Your task to perform on an android device: Go to Yahoo.com Image 0: 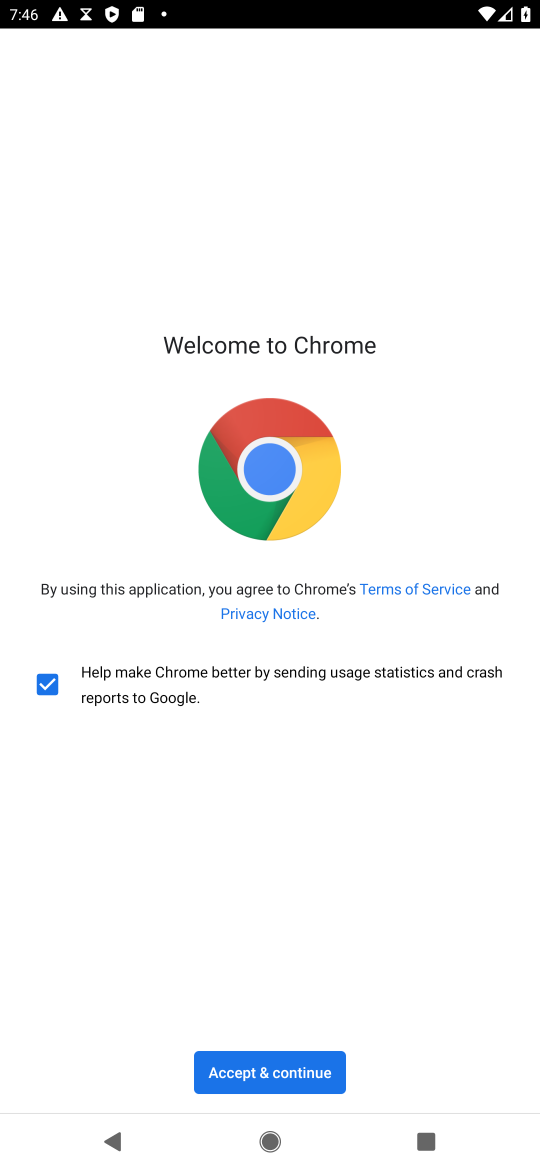
Step 0: click (309, 1076)
Your task to perform on an android device: Go to Yahoo.com Image 1: 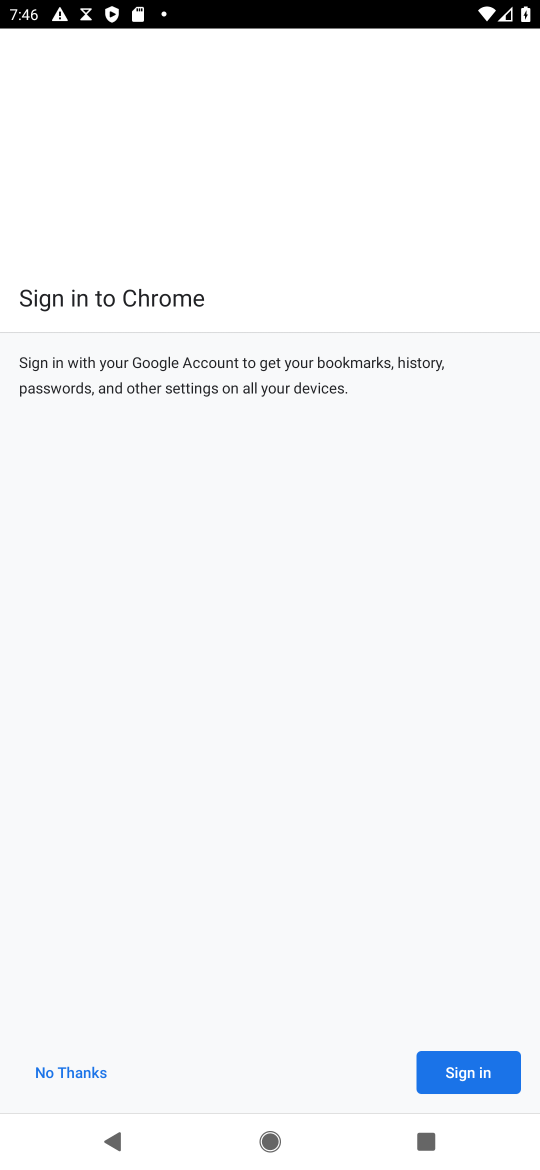
Step 1: click (500, 1071)
Your task to perform on an android device: Go to Yahoo.com Image 2: 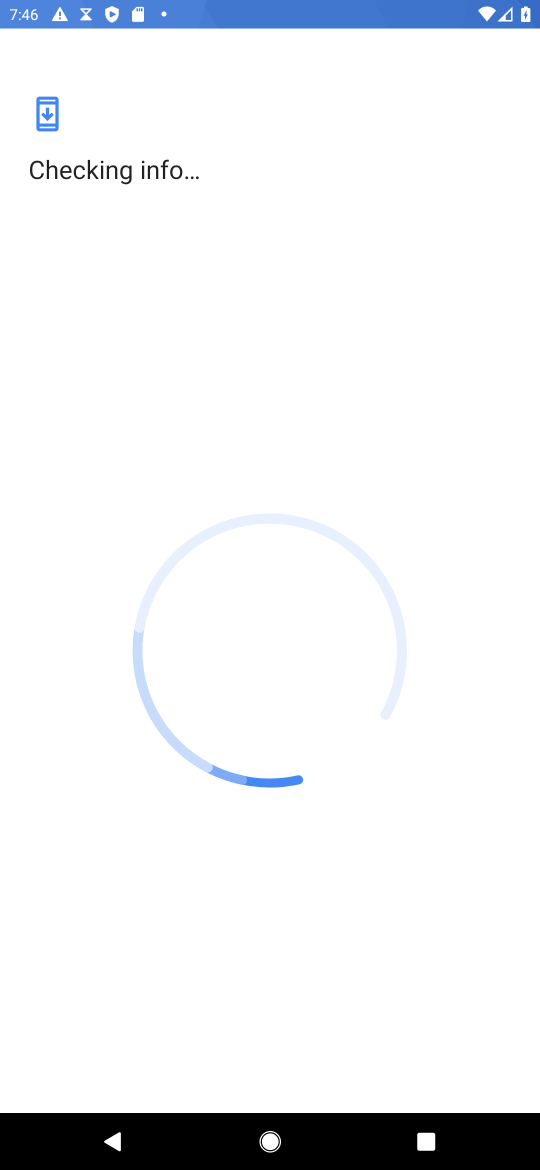
Step 2: click (475, 1063)
Your task to perform on an android device: Go to Yahoo.com Image 3: 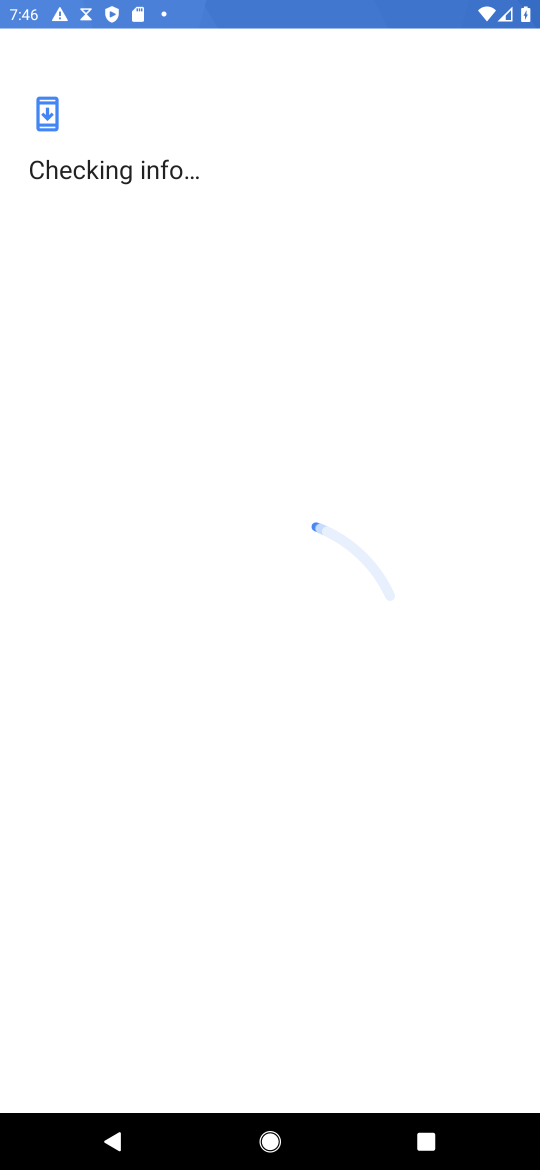
Step 3: press back button
Your task to perform on an android device: Go to Yahoo.com Image 4: 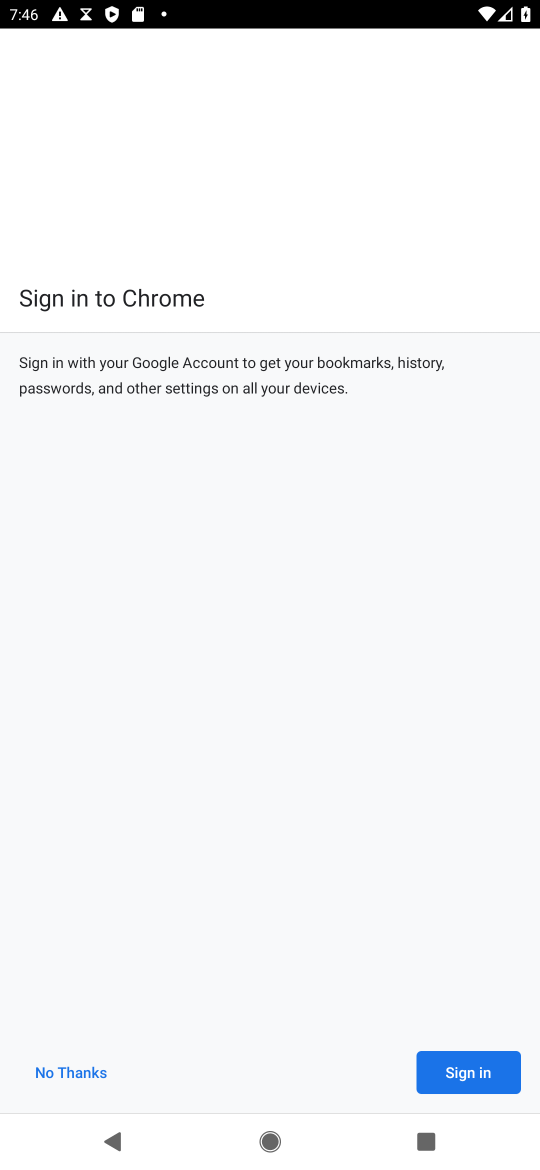
Step 4: click (78, 1068)
Your task to perform on an android device: Go to Yahoo.com Image 5: 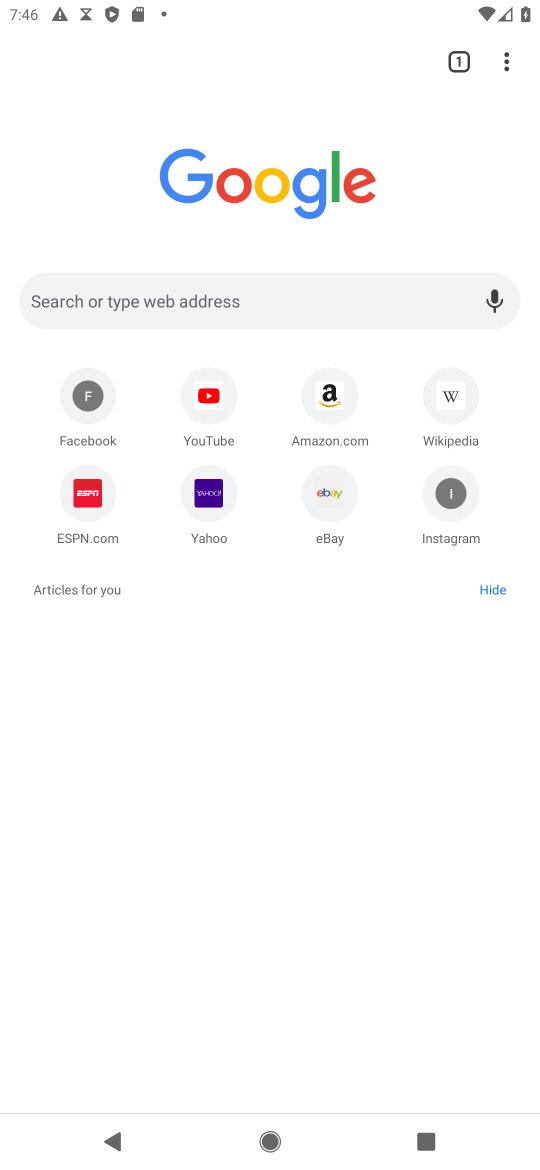
Step 5: click (194, 515)
Your task to perform on an android device: Go to Yahoo.com Image 6: 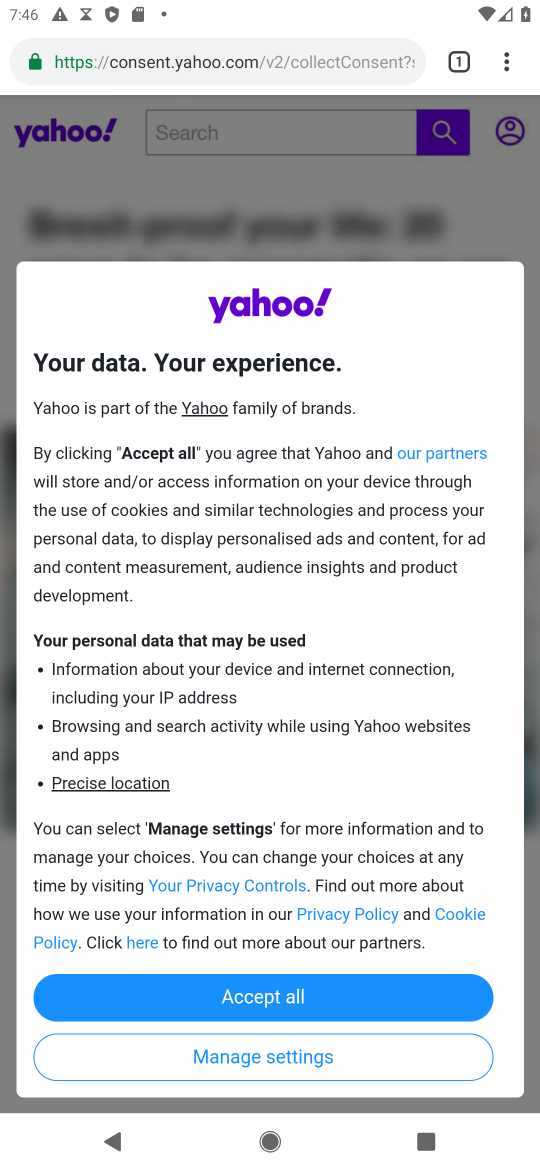
Step 6: task complete